Your task to perform on an android device: Go to ESPN.com Image 0: 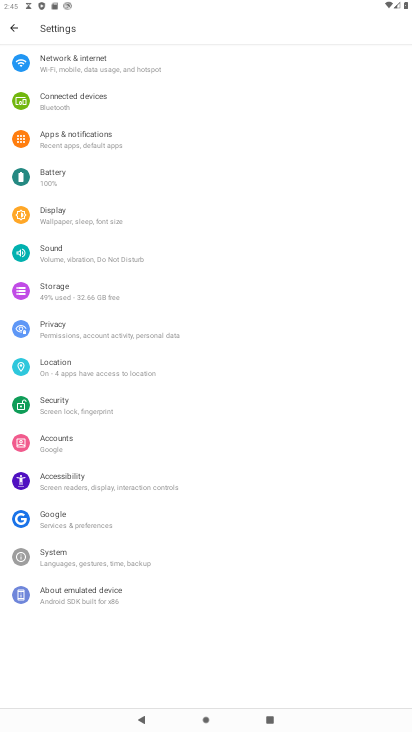
Step 0: press home button
Your task to perform on an android device: Go to ESPN.com Image 1: 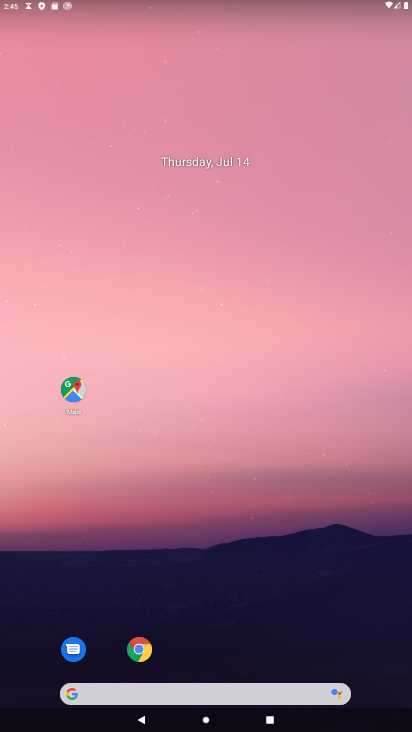
Step 1: click (141, 650)
Your task to perform on an android device: Go to ESPN.com Image 2: 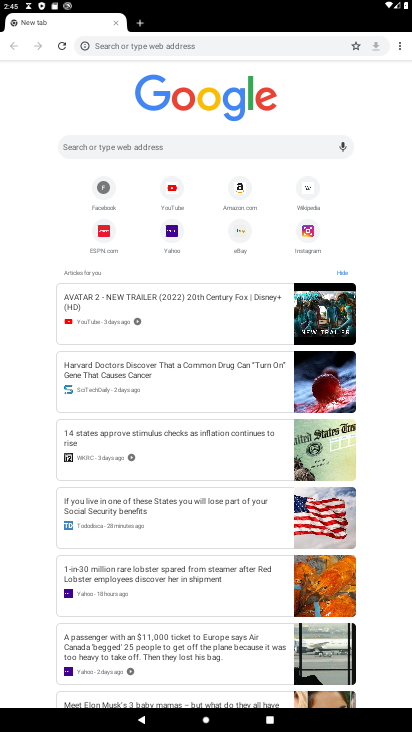
Step 2: click (101, 236)
Your task to perform on an android device: Go to ESPN.com Image 3: 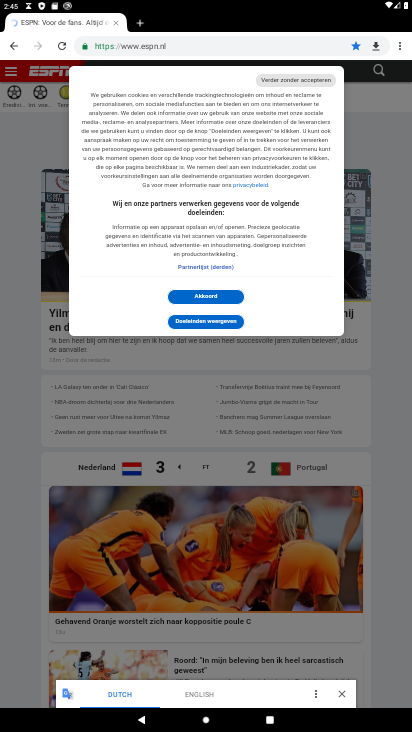
Step 3: task complete